Your task to perform on an android device: Open the calendar and show me this week's events? Image 0: 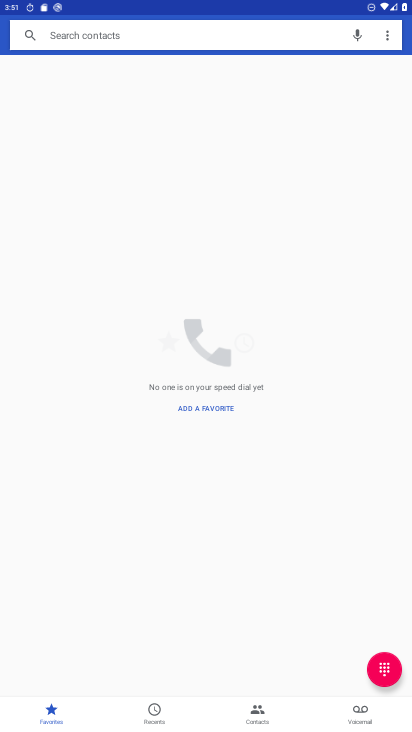
Step 0: press home button
Your task to perform on an android device: Open the calendar and show me this week's events? Image 1: 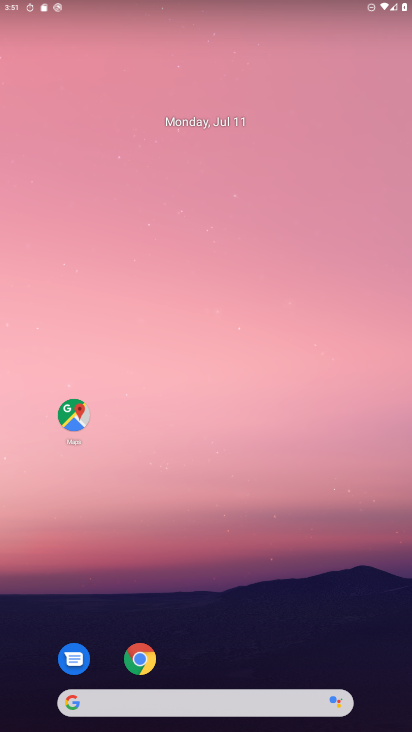
Step 1: drag from (187, 630) to (180, 402)
Your task to perform on an android device: Open the calendar and show me this week's events? Image 2: 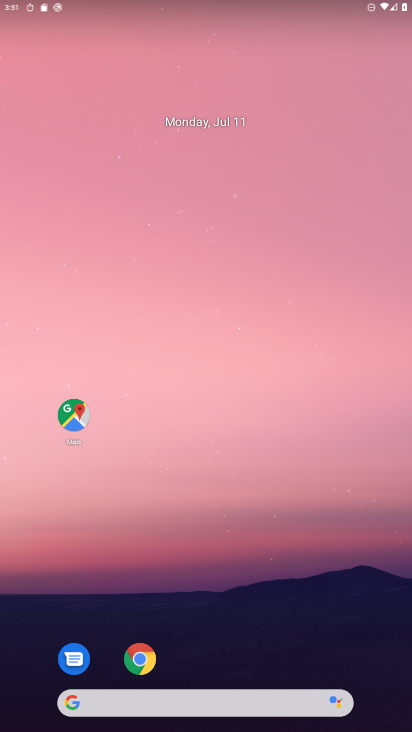
Step 2: drag from (227, 621) to (251, 147)
Your task to perform on an android device: Open the calendar and show me this week's events? Image 3: 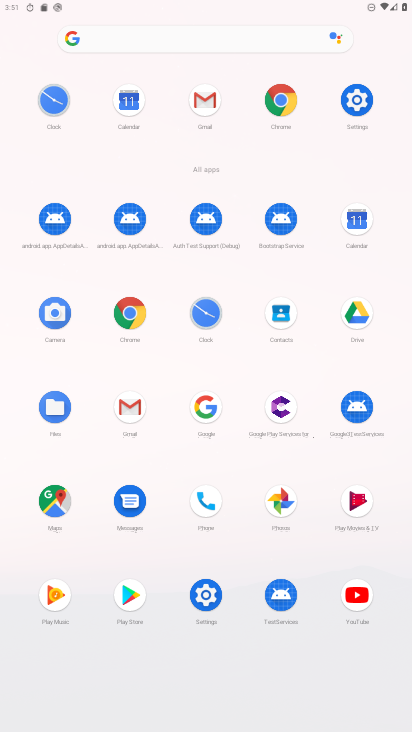
Step 3: click (374, 216)
Your task to perform on an android device: Open the calendar and show me this week's events? Image 4: 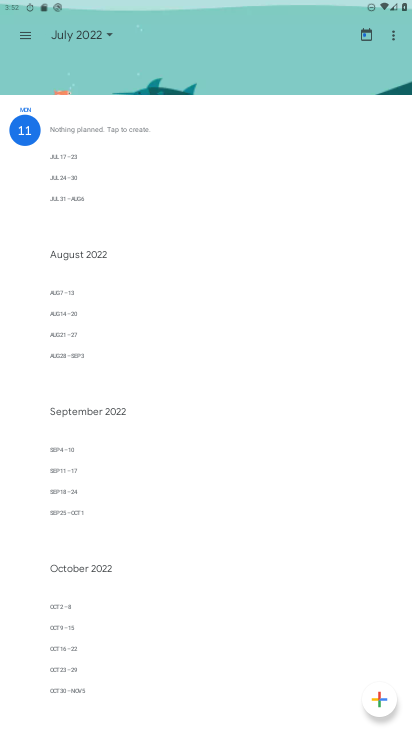
Step 4: task complete